Your task to perform on an android device: Go to privacy settings Image 0: 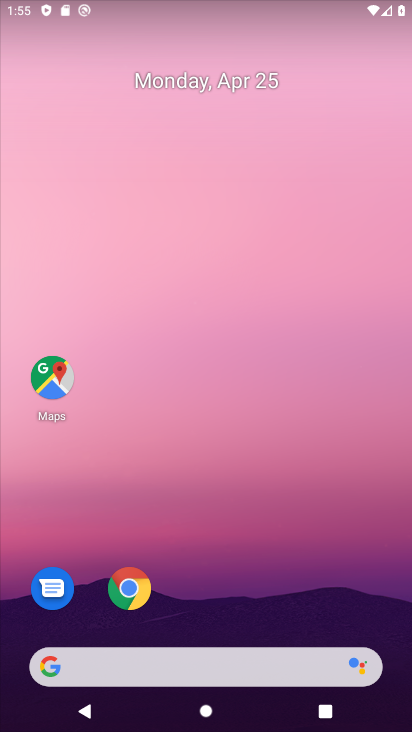
Step 0: click (130, 598)
Your task to perform on an android device: Go to privacy settings Image 1: 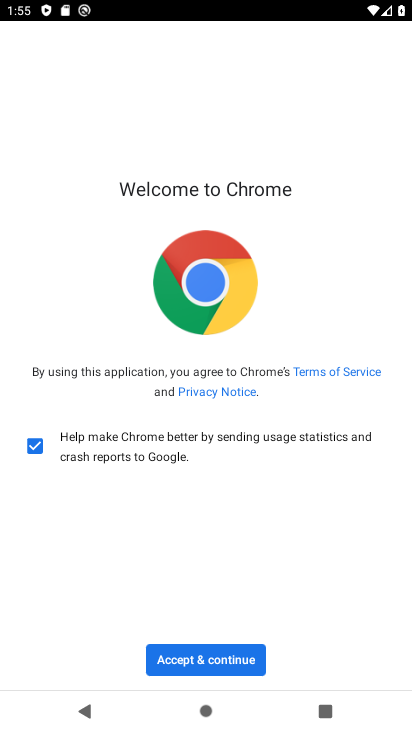
Step 1: click (246, 656)
Your task to perform on an android device: Go to privacy settings Image 2: 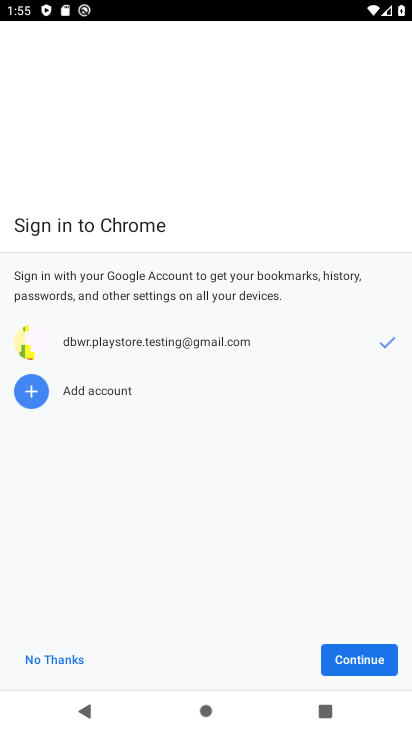
Step 2: click (359, 653)
Your task to perform on an android device: Go to privacy settings Image 3: 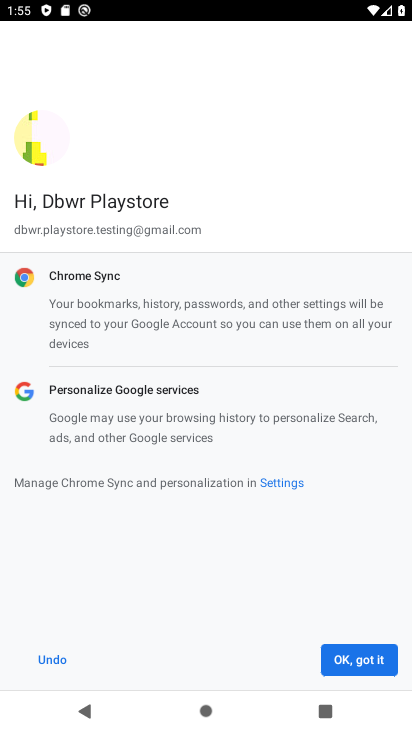
Step 3: click (355, 659)
Your task to perform on an android device: Go to privacy settings Image 4: 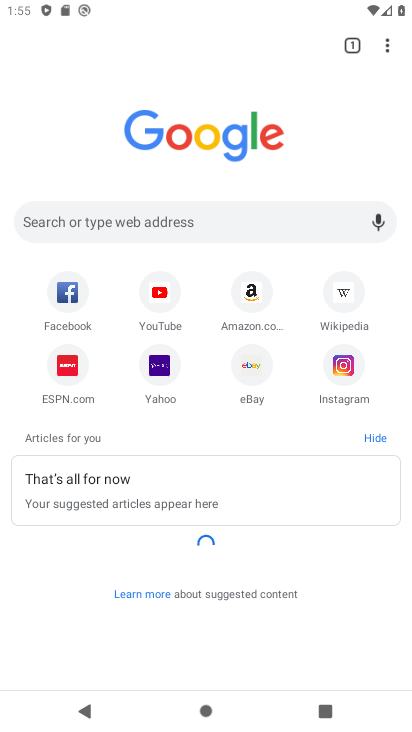
Step 4: drag from (381, 48) to (294, 376)
Your task to perform on an android device: Go to privacy settings Image 5: 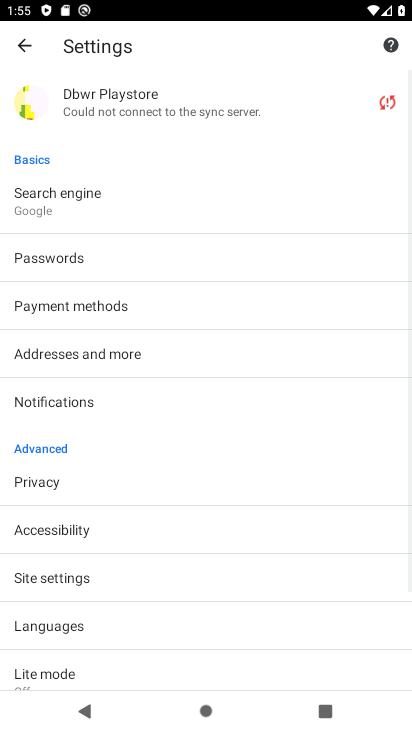
Step 5: click (152, 482)
Your task to perform on an android device: Go to privacy settings Image 6: 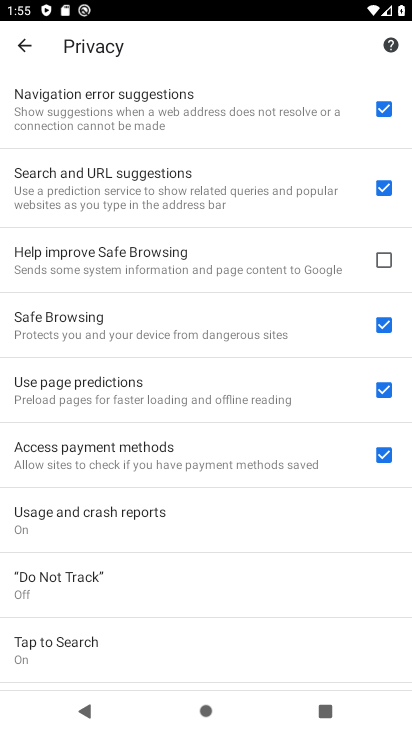
Step 6: task complete